Your task to perform on an android device: Open ESPN.com Image 0: 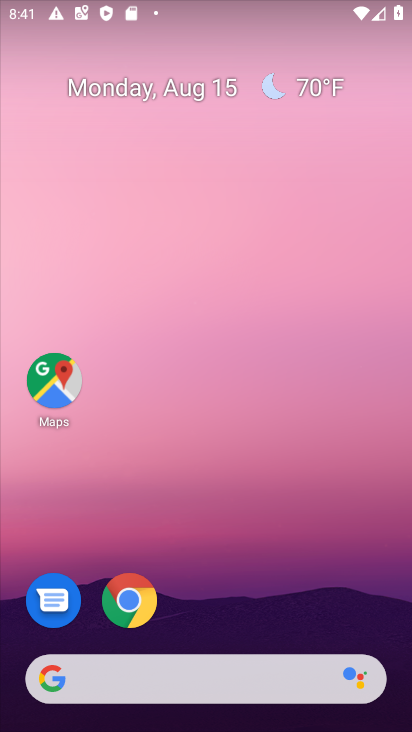
Step 0: click (125, 591)
Your task to perform on an android device: Open ESPN.com Image 1: 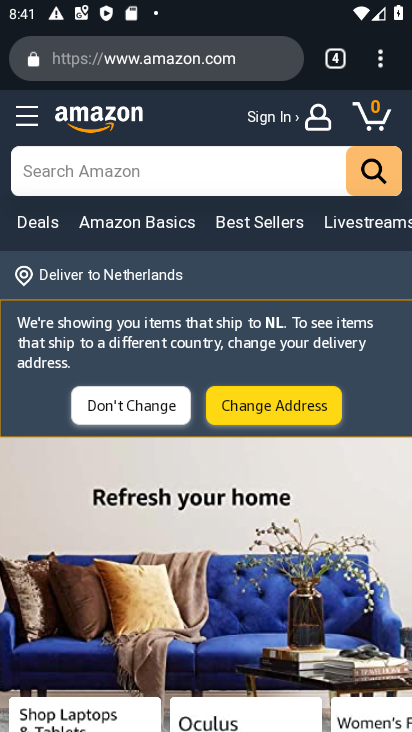
Step 1: drag from (380, 67) to (169, 121)
Your task to perform on an android device: Open ESPN.com Image 2: 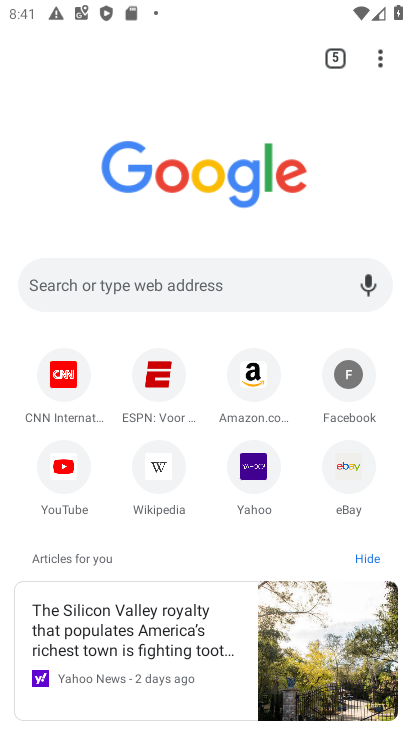
Step 2: click (147, 366)
Your task to perform on an android device: Open ESPN.com Image 3: 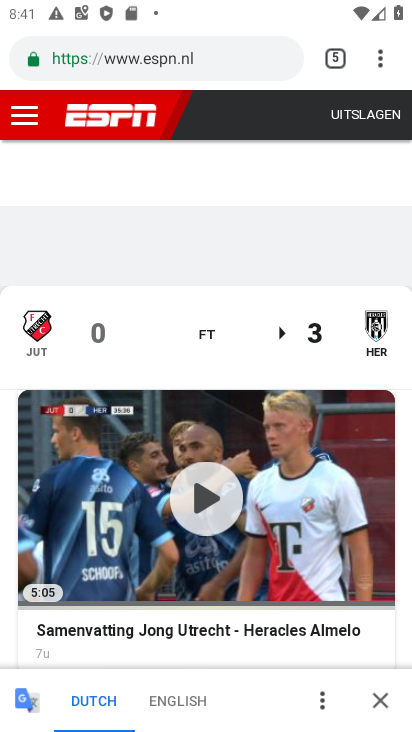
Step 3: task complete